Your task to perform on an android device: Is it going to rain tomorrow? Image 0: 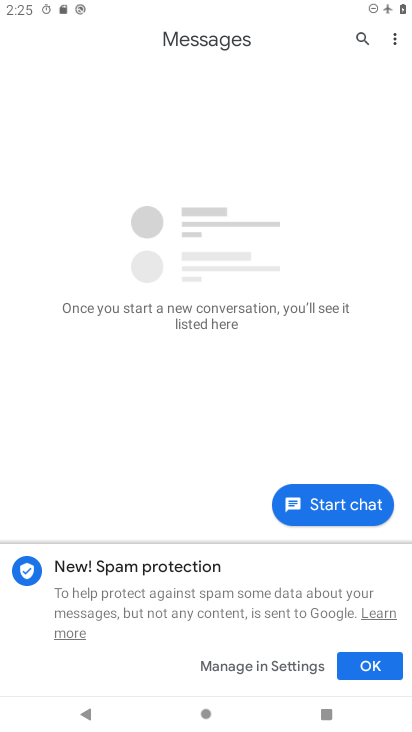
Step 0: press home button
Your task to perform on an android device: Is it going to rain tomorrow? Image 1: 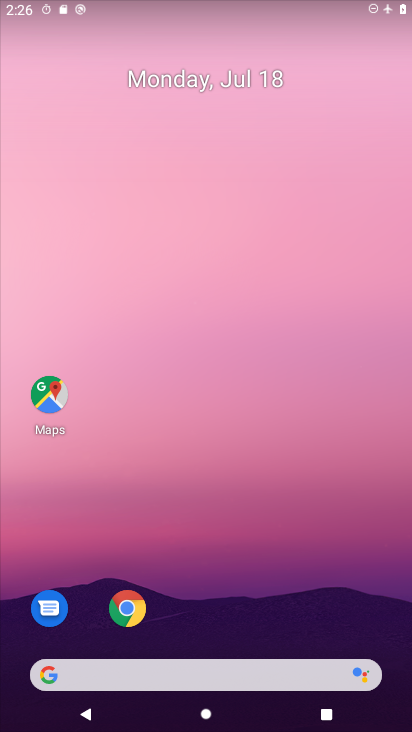
Step 1: drag from (233, 723) to (188, 68)
Your task to perform on an android device: Is it going to rain tomorrow? Image 2: 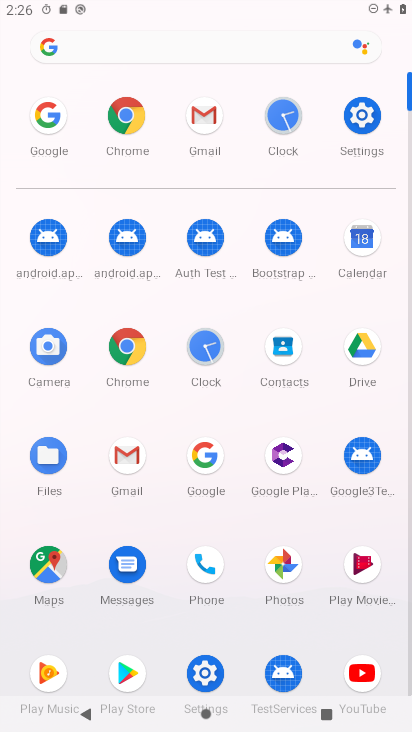
Step 2: click (210, 458)
Your task to perform on an android device: Is it going to rain tomorrow? Image 3: 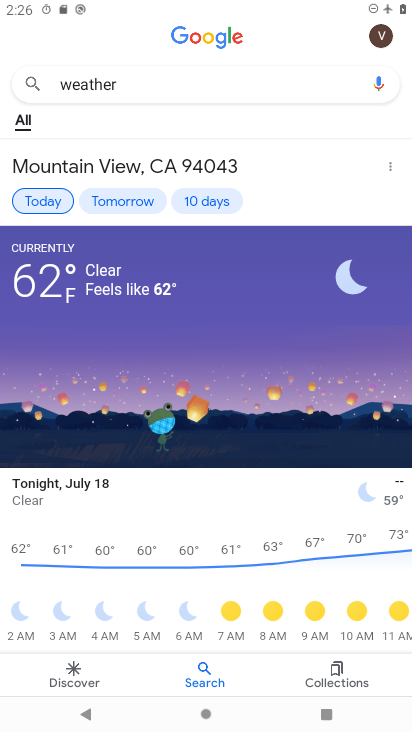
Step 3: click (120, 197)
Your task to perform on an android device: Is it going to rain tomorrow? Image 4: 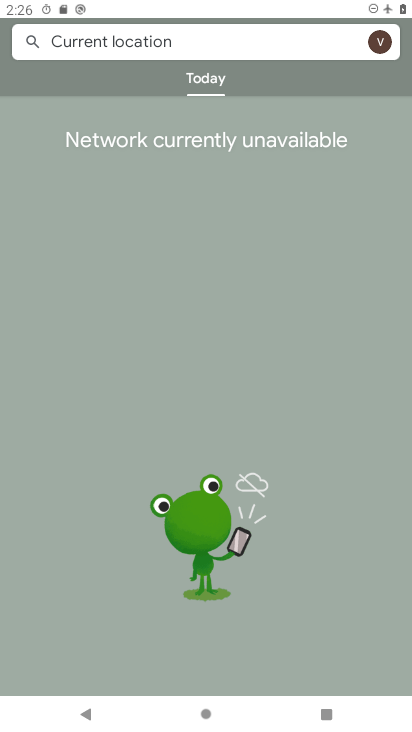
Step 4: task complete